Your task to perform on an android device: show emergency info Image 0: 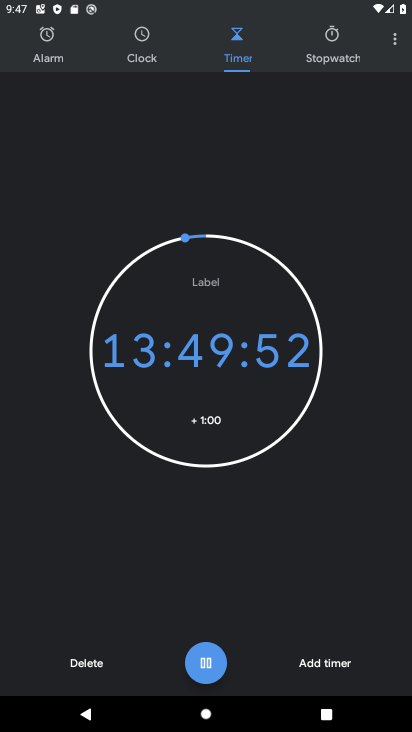
Step 0: press home button
Your task to perform on an android device: show emergency info Image 1: 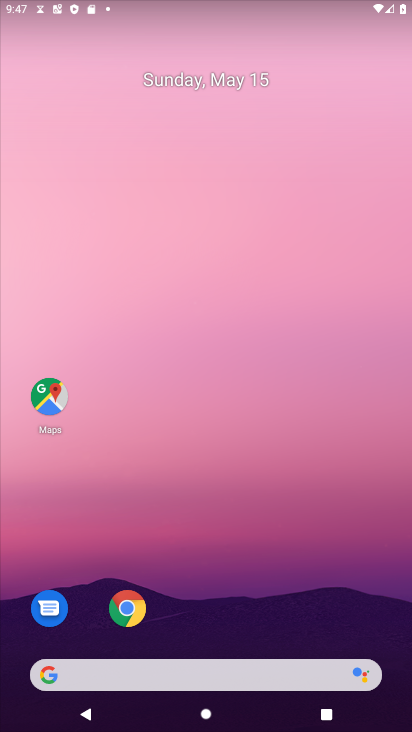
Step 1: drag from (311, 483) to (304, 50)
Your task to perform on an android device: show emergency info Image 2: 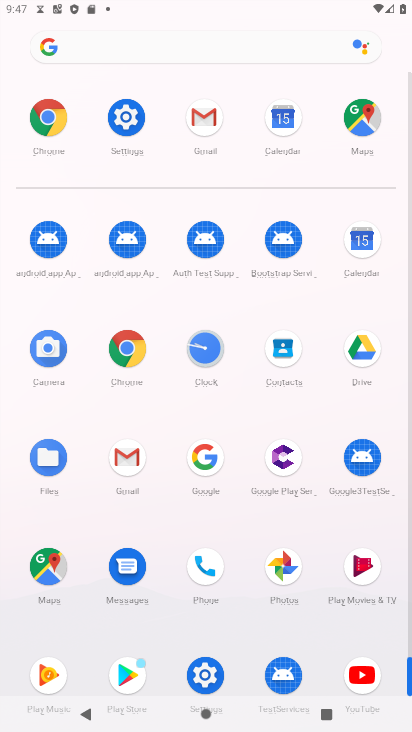
Step 2: click (126, 98)
Your task to perform on an android device: show emergency info Image 3: 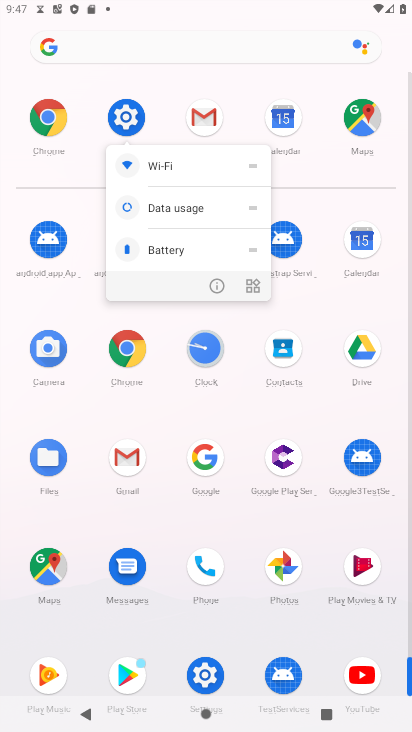
Step 3: click (130, 117)
Your task to perform on an android device: show emergency info Image 4: 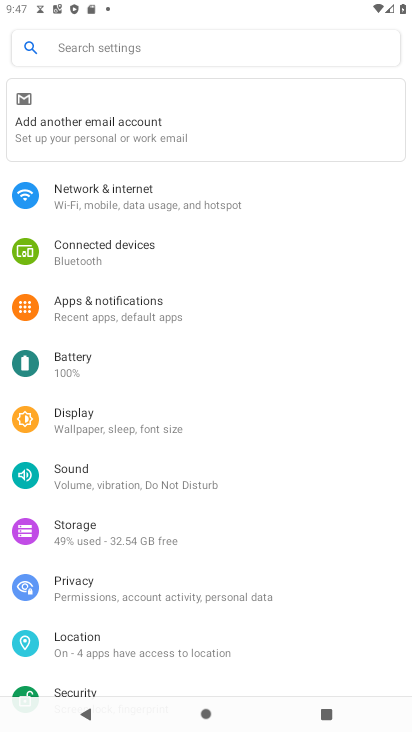
Step 4: drag from (154, 577) to (249, 69)
Your task to perform on an android device: show emergency info Image 5: 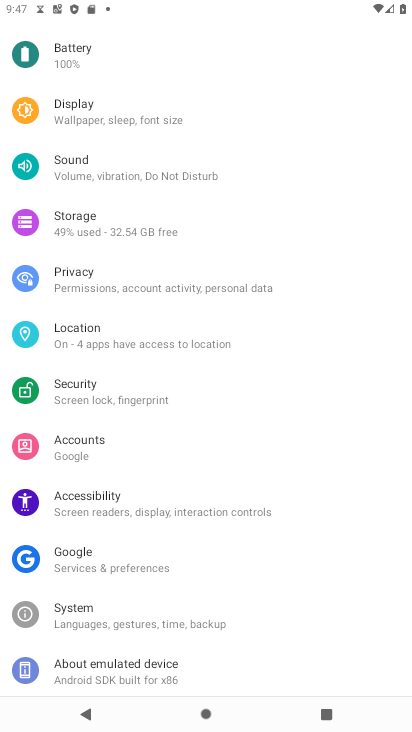
Step 5: click (136, 660)
Your task to perform on an android device: show emergency info Image 6: 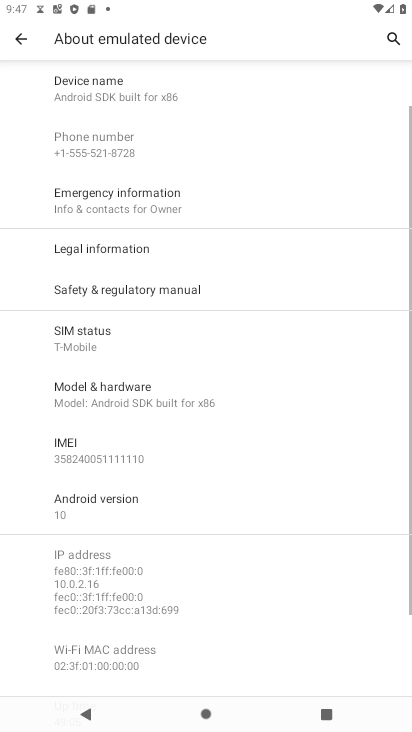
Step 6: drag from (224, 165) to (161, 623)
Your task to perform on an android device: show emergency info Image 7: 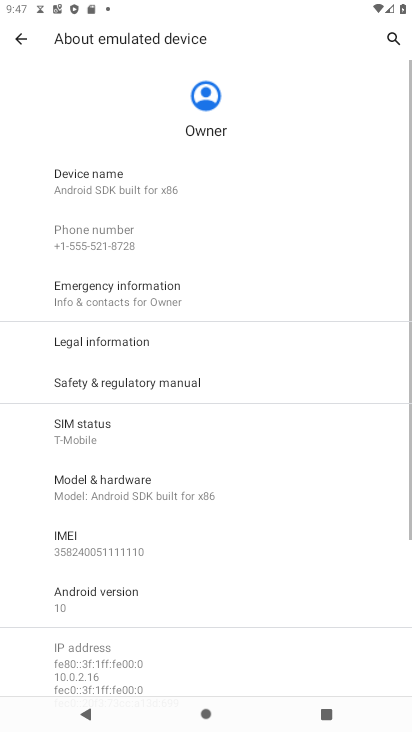
Step 7: click (154, 293)
Your task to perform on an android device: show emergency info Image 8: 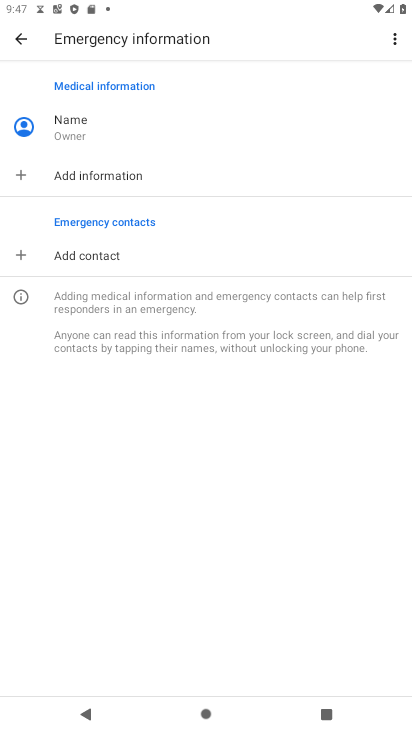
Step 8: task complete